Your task to perform on an android device: Search for flights from Seoul to Mexico city Image 0: 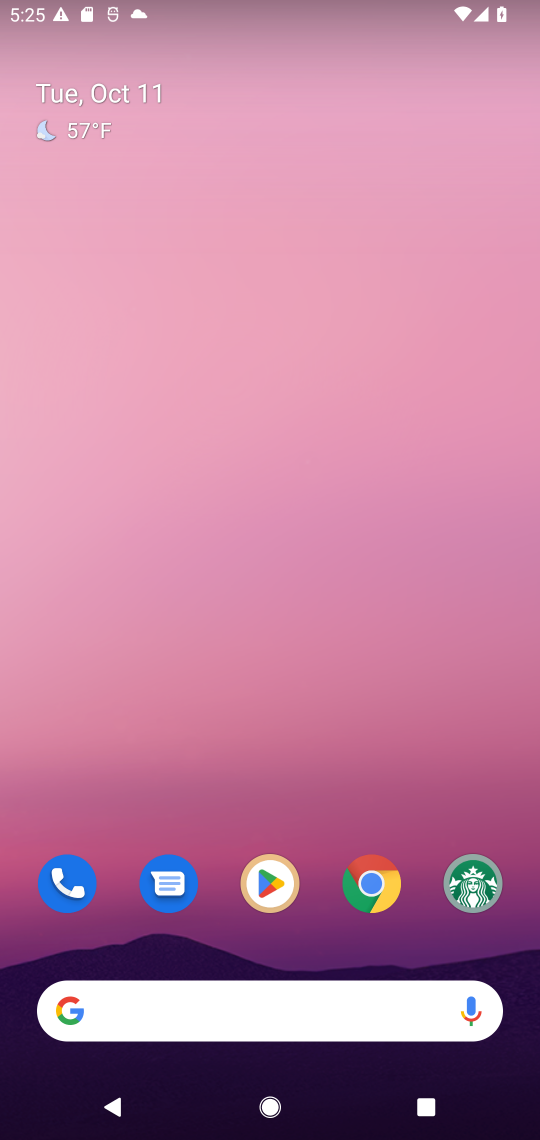
Step 0: drag from (320, 950) to (177, 59)
Your task to perform on an android device: Search for flights from Seoul to Mexico city Image 1: 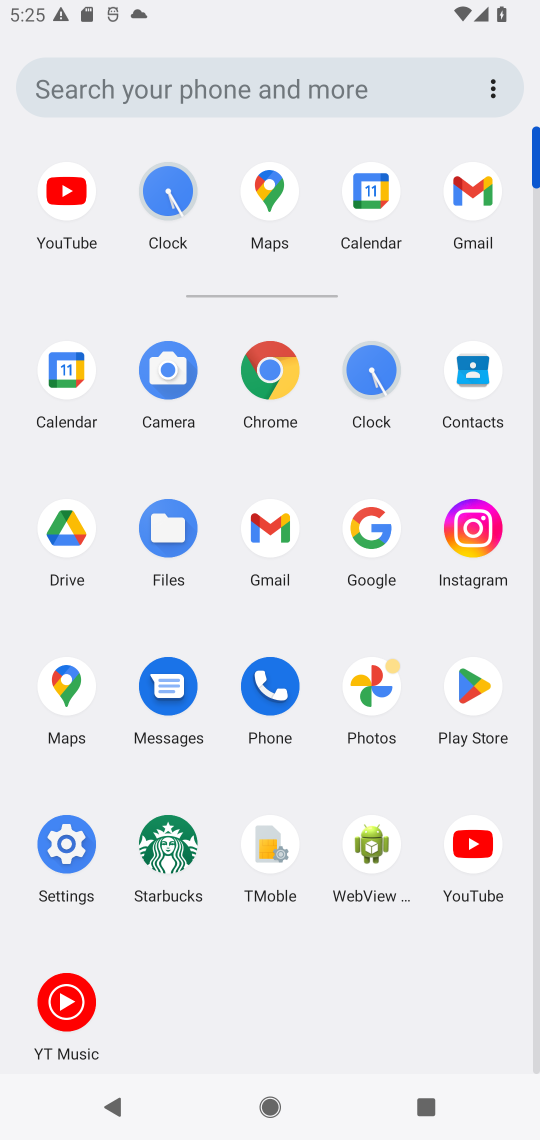
Step 1: click (267, 373)
Your task to perform on an android device: Search for flights from Seoul to Mexico city Image 2: 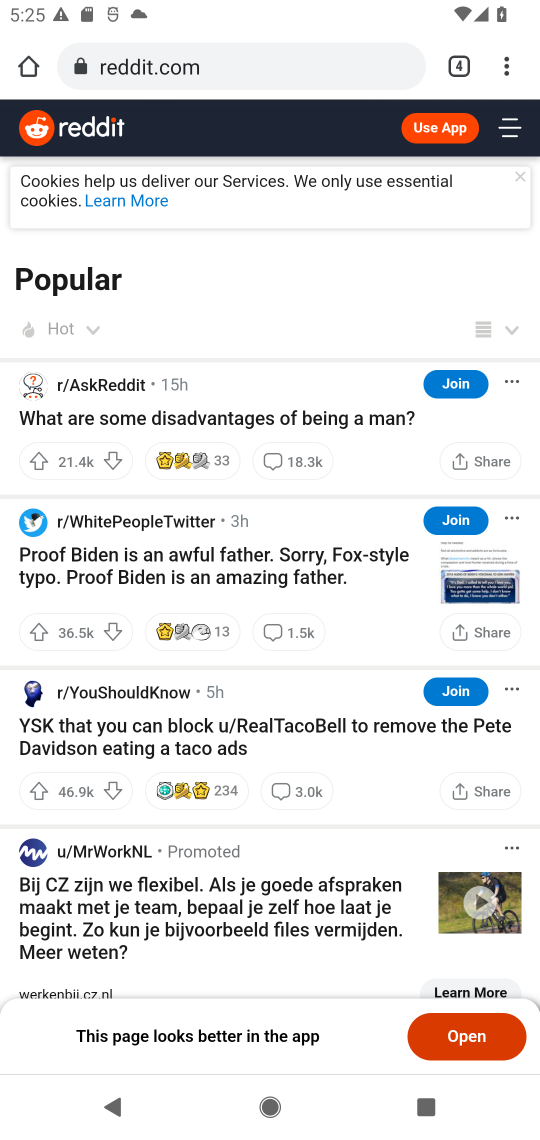
Step 2: click (262, 75)
Your task to perform on an android device: Search for flights from Seoul to Mexico city Image 3: 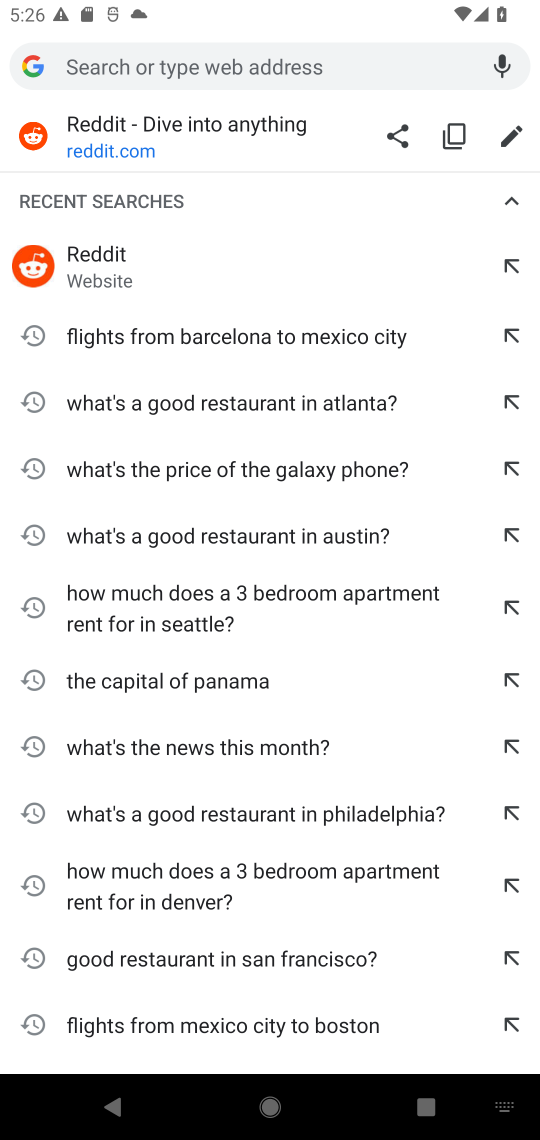
Step 3: type "flights from Seoul to Mexico city"
Your task to perform on an android device: Search for flights from Seoul to Mexico city Image 4: 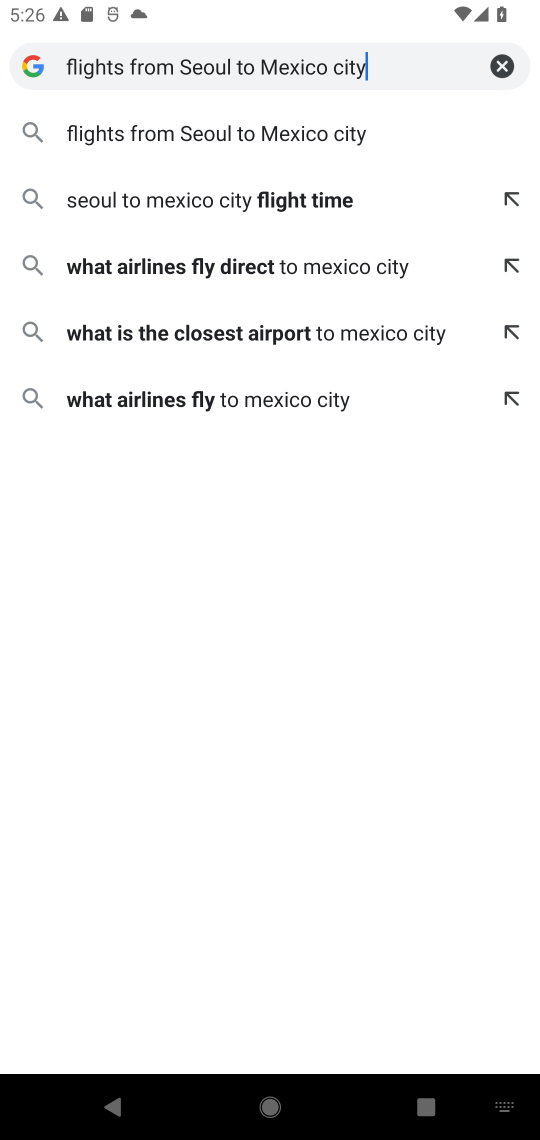
Step 4: press enter
Your task to perform on an android device: Search for flights from Seoul to Mexico city Image 5: 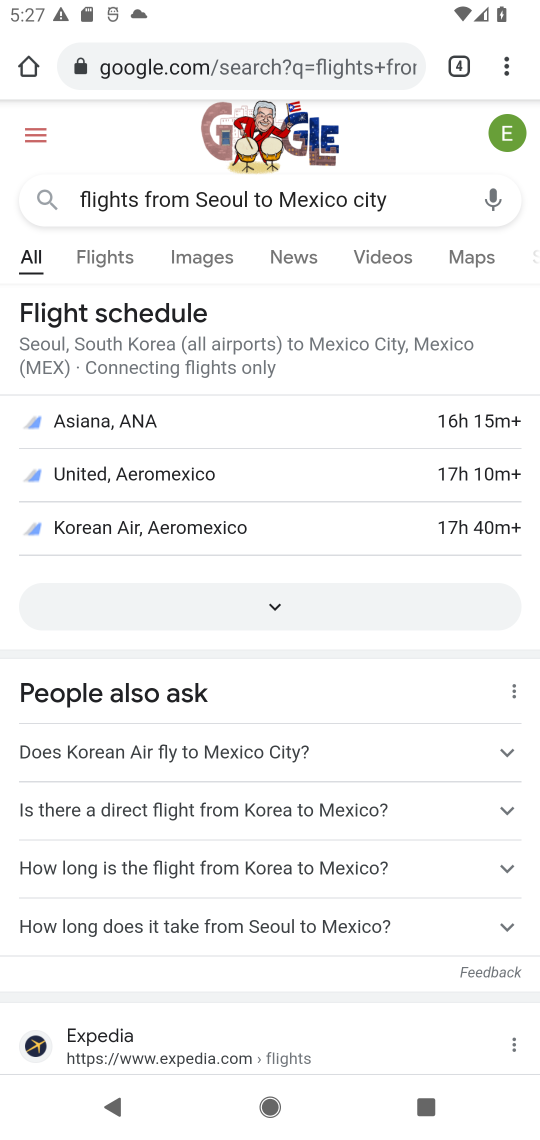
Step 5: task complete